Your task to perform on an android device: Go to CNN.com Image 0: 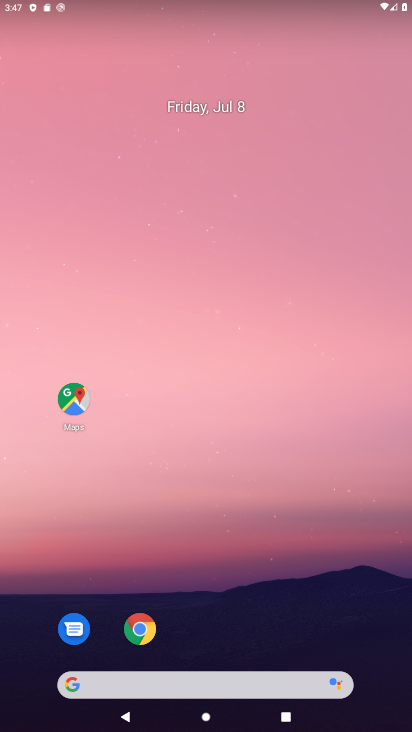
Step 0: drag from (202, 649) to (131, 23)
Your task to perform on an android device: Go to CNN.com Image 1: 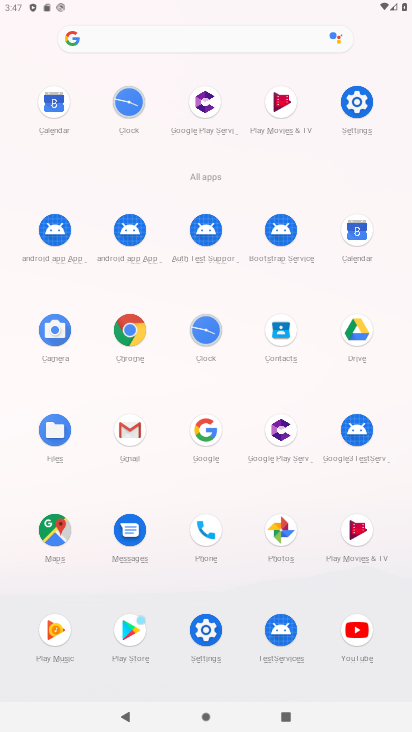
Step 1: click (133, 346)
Your task to perform on an android device: Go to CNN.com Image 2: 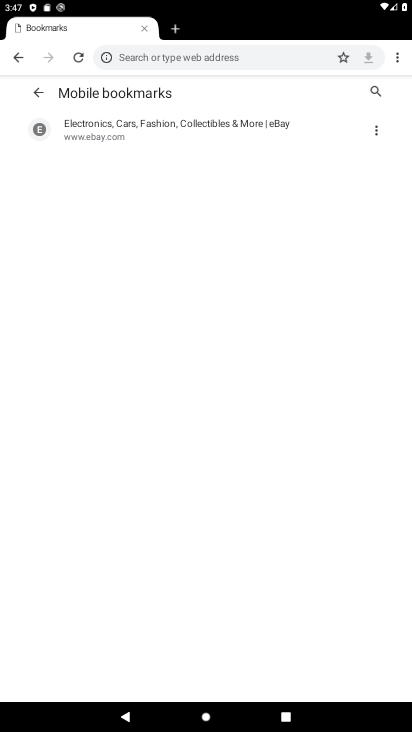
Step 2: click (157, 63)
Your task to perform on an android device: Go to CNN.com Image 3: 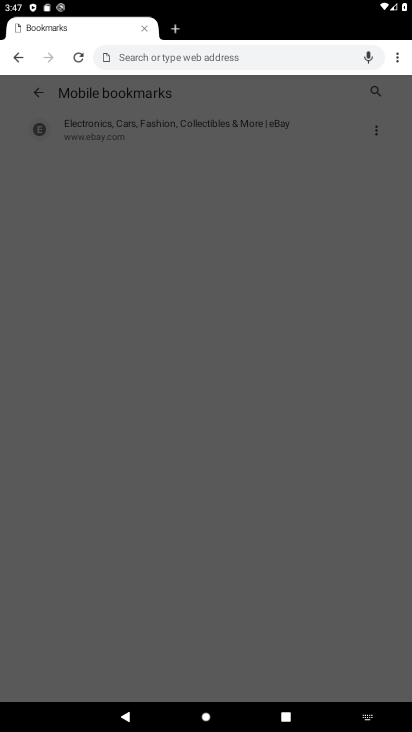
Step 3: type "cnn"
Your task to perform on an android device: Go to CNN.com Image 4: 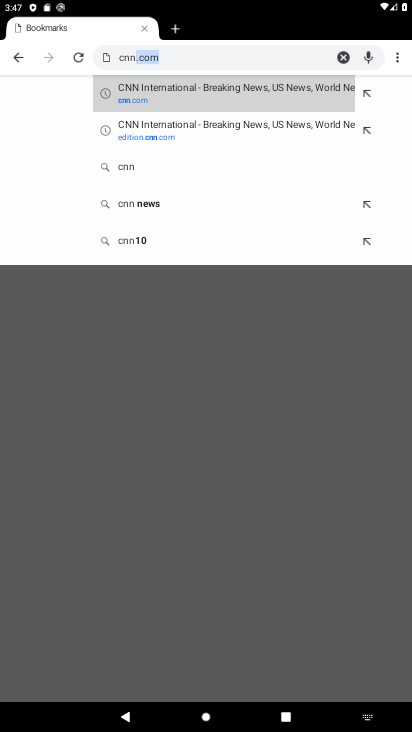
Step 4: type ""
Your task to perform on an android device: Go to CNN.com Image 5: 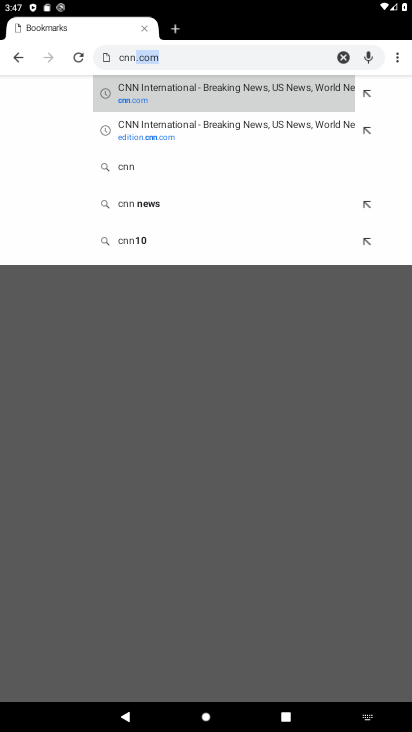
Step 5: click (200, 97)
Your task to perform on an android device: Go to CNN.com Image 6: 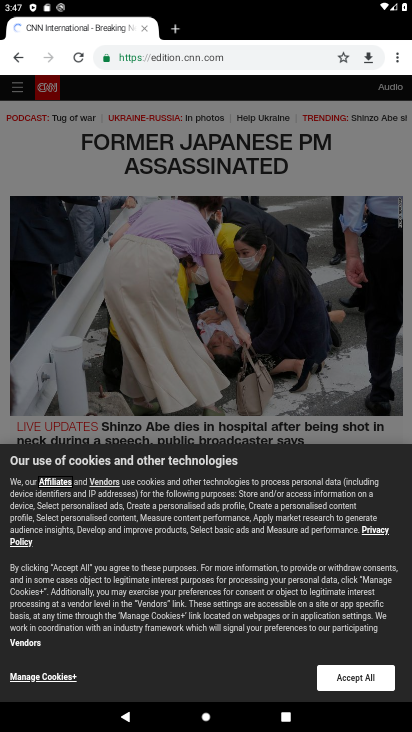
Step 6: task complete